Your task to perform on an android device: Open ESPN.com Image 0: 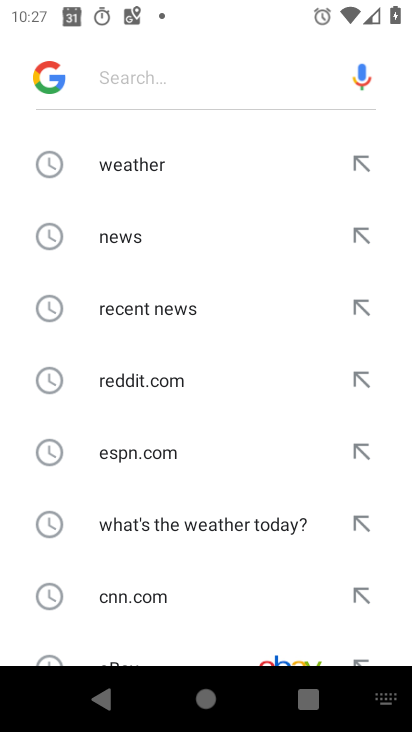
Step 0: type "espn.com"
Your task to perform on an android device: Open ESPN.com Image 1: 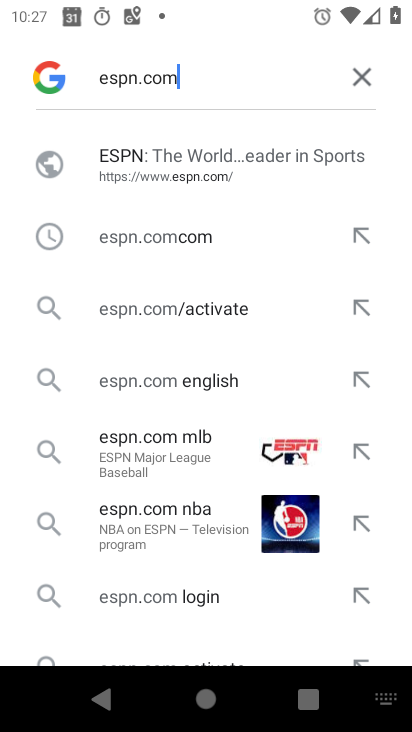
Step 1: click (175, 170)
Your task to perform on an android device: Open ESPN.com Image 2: 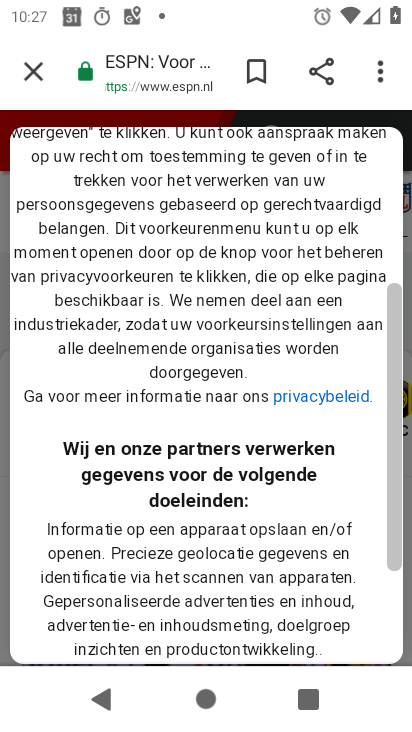
Step 2: task complete